Your task to perform on an android device: Open sound settings Image 0: 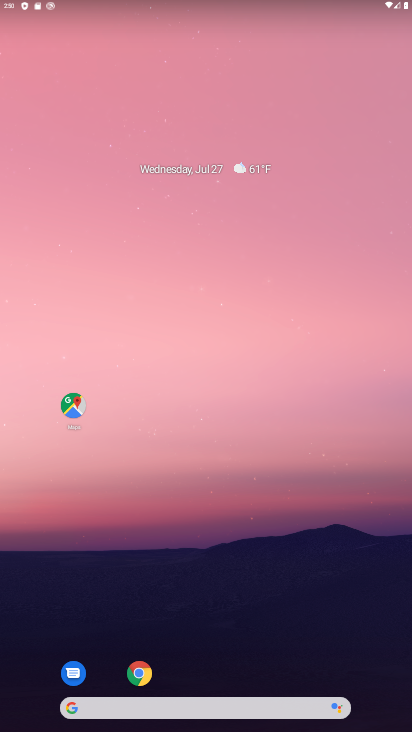
Step 0: drag from (248, 653) to (182, 198)
Your task to perform on an android device: Open sound settings Image 1: 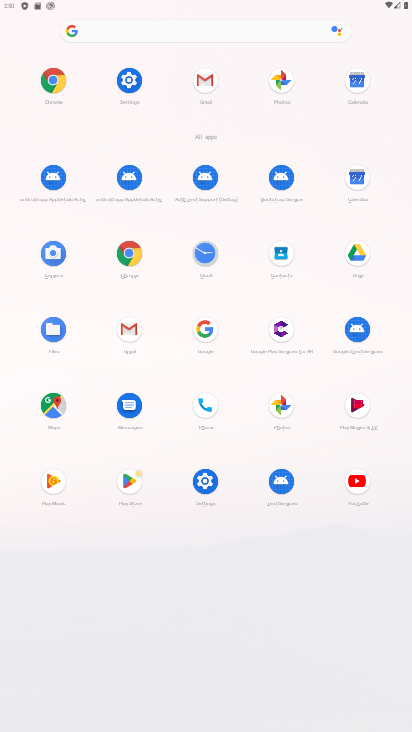
Step 1: click (203, 485)
Your task to perform on an android device: Open sound settings Image 2: 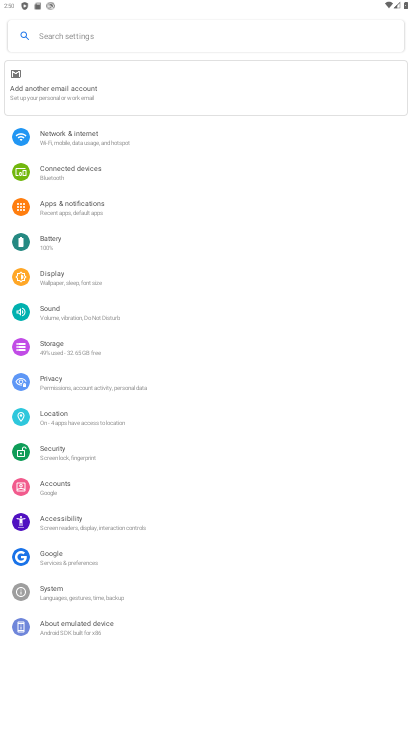
Step 2: click (78, 310)
Your task to perform on an android device: Open sound settings Image 3: 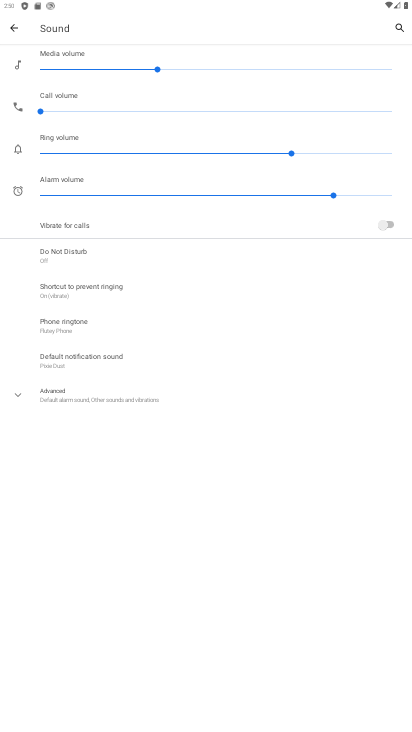
Step 3: task complete